Your task to perform on an android device: Go to internet settings Image 0: 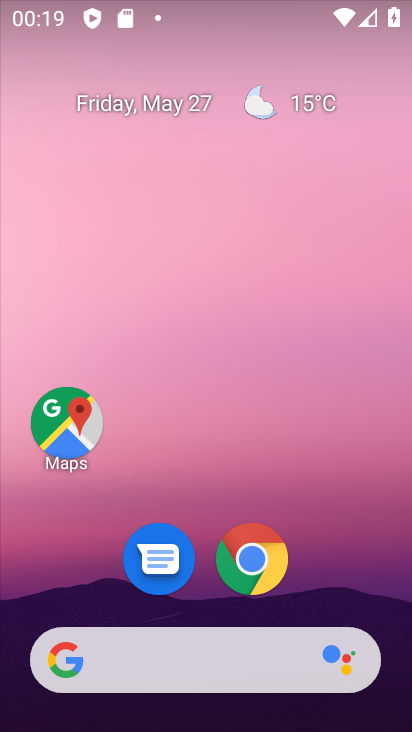
Step 0: drag from (304, 304) to (165, 1)
Your task to perform on an android device: Go to internet settings Image 1: 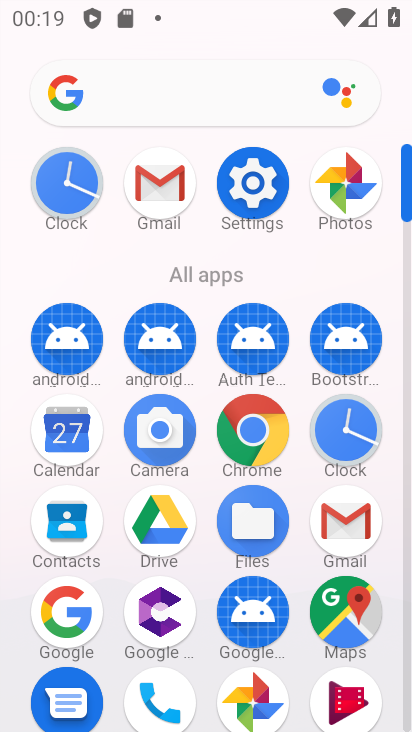
Step 1: click (256, 172)
Your task to perform on an android device: Go to internet settings Image 2: 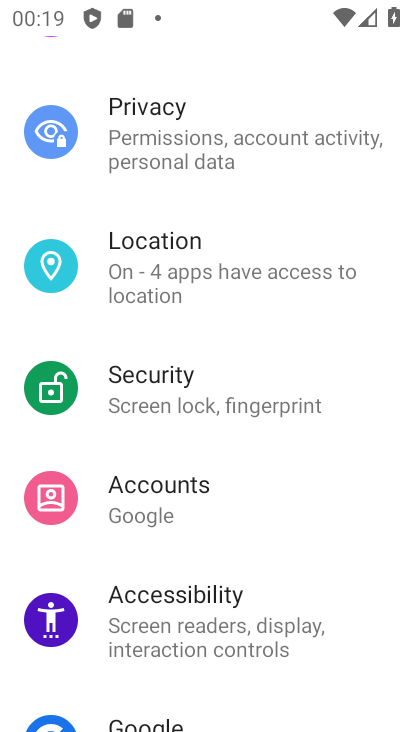
Step 2: drag from (205, 135) to (152, 575)
Your task to perform on an android device: Go to internet settings Image 3: 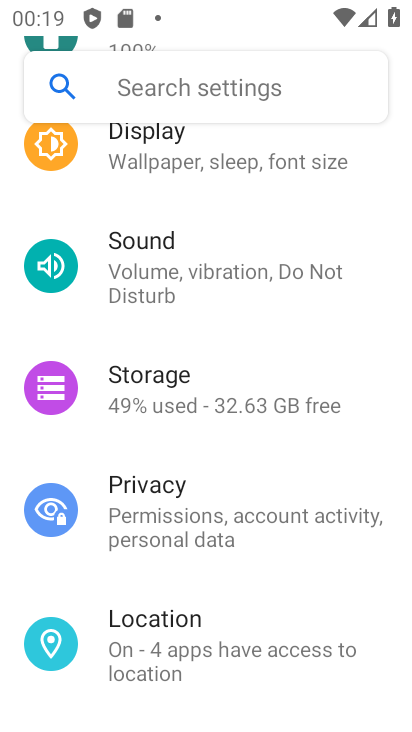
Step 3: drag from (206, 191) to (163, 627)
Your task to perform on an android device: Go to internet settings Image 4: 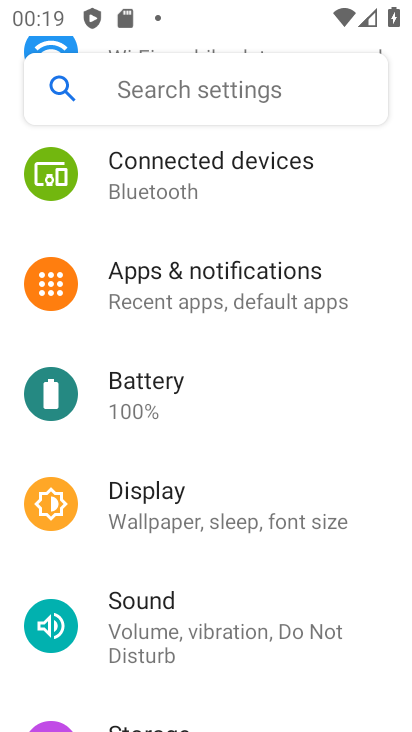
Step 4: click (183, 261)
Your task to perform on an android device: Go to internet settings Image 5: 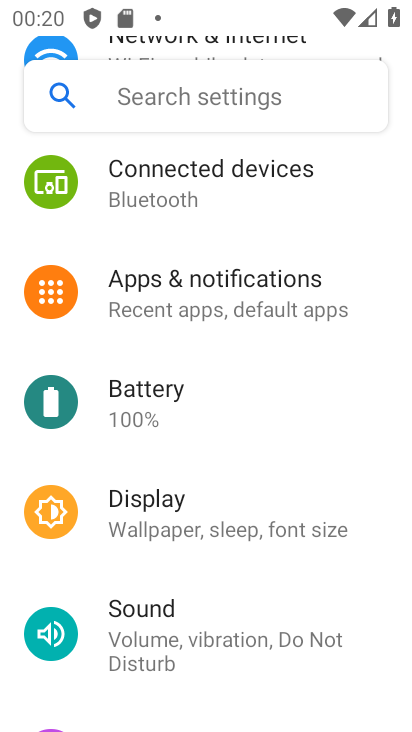
Step 5: drag from (271, 243) to (253, 577)
Your task to perform on an android device: Go to internet settings Image 6: 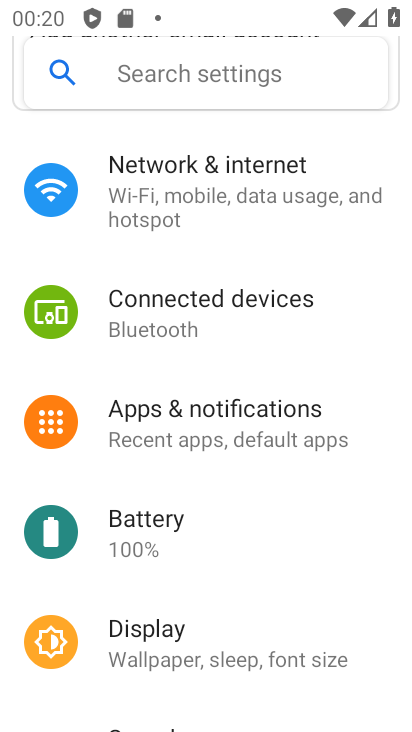
Step 6: click (171, 211)
Your task to perform on an android device: Go to internet settings Image 7: 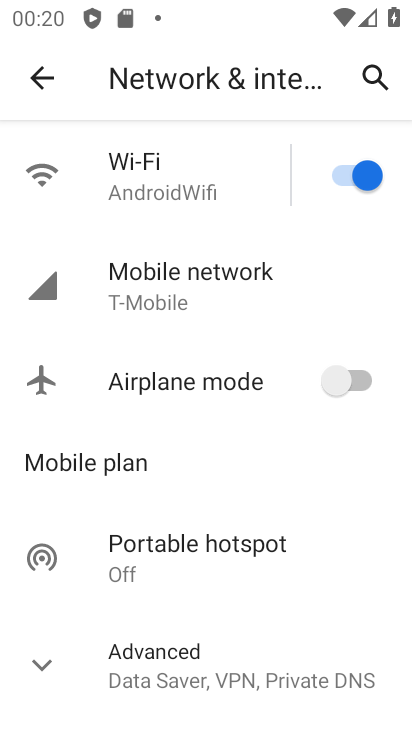
Step 7: task complete